Your task to perform on an android device: toggle javascript in the chrome app Image 0: 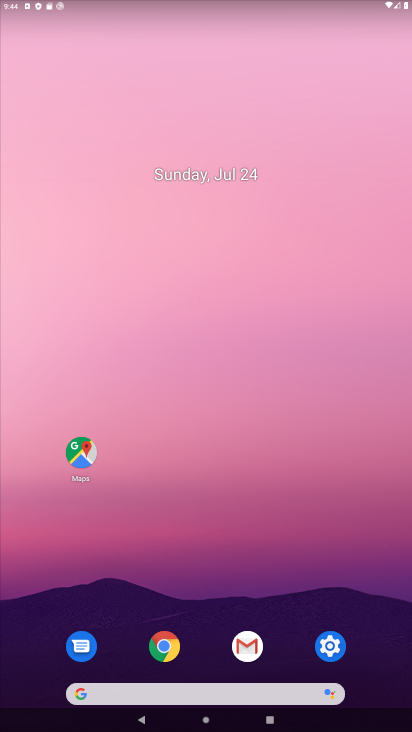
Step 0: click (160, 648)
Your task to perform on an android device: toggle javascript in the chrome app Image 1: 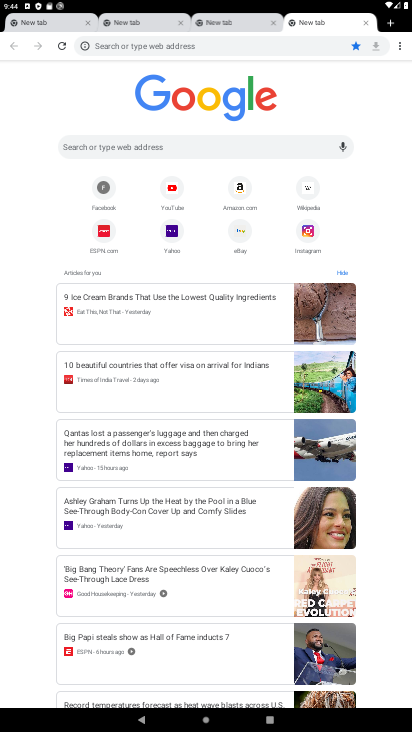
Step 1: click (400, 43)
Your task to perform on an android device: toggle javascript in the chrome app Image 2: 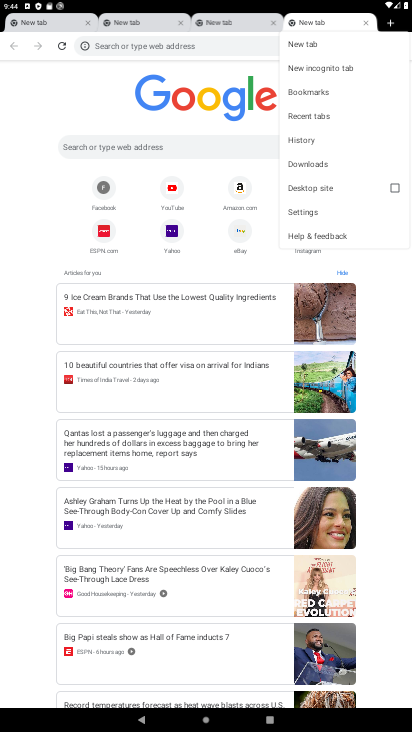
Step 2: click (312, 214)
Your task to perform on an android device: toggle javascript in the chrome app Image 3: 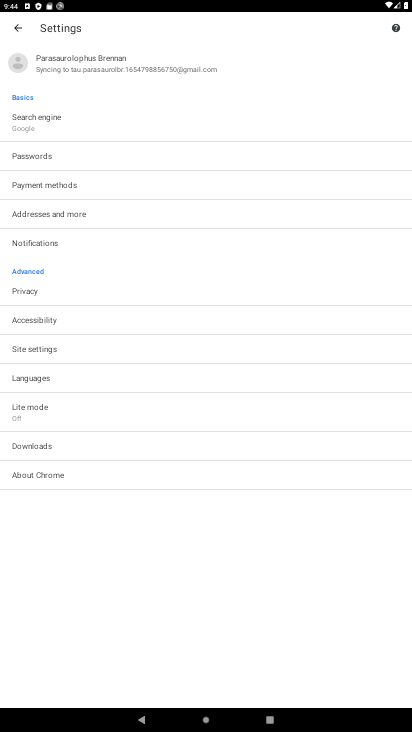
Step 3: click (59, 350)
Your task to perform on an android device: toggle javascript in the chrome app Image 4: 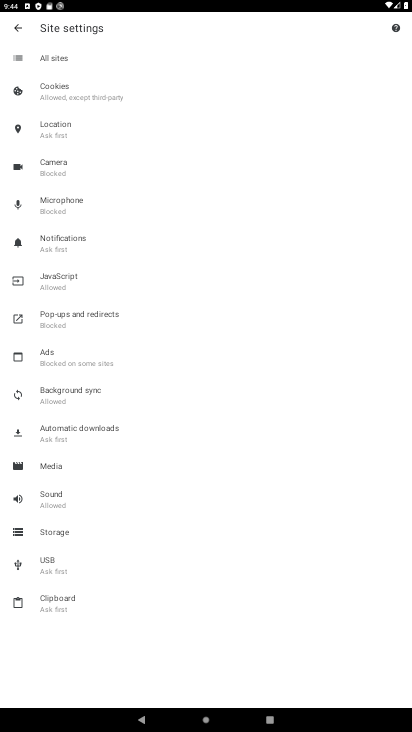
Step 4: click (72, 287)
Your task to perform on an android device: toggle javascript in the chrome app Image 5: 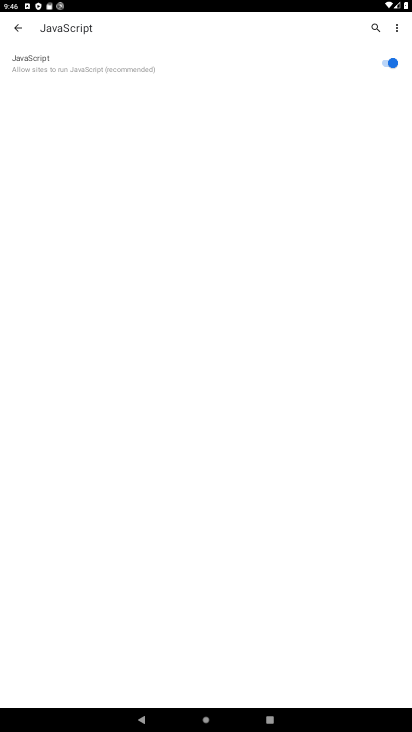
Step 5: task complete